Your task to perform on an android device: toggle improve location accuracy Image 0: 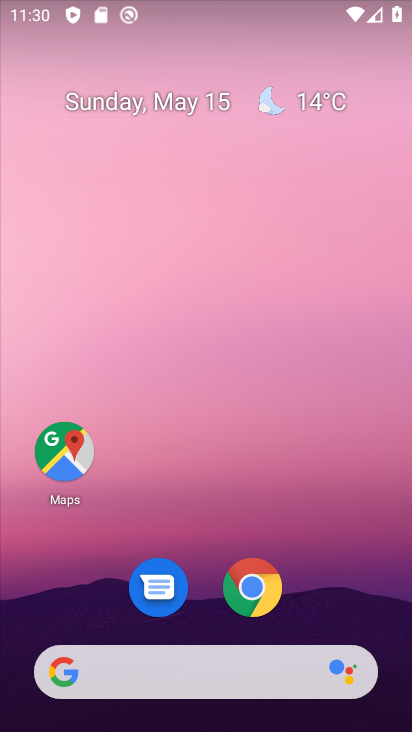
Step 0: drag from (372, 584) to (410, 76)
Your task to perform on an android device: toggle improve location accuracy Image 1: 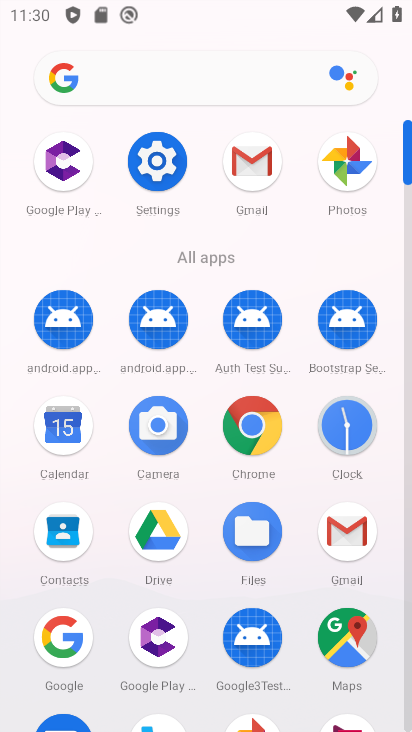
Step 1: click (164, 156)
Your task to perform on an android device: toggle improve location accuracy Image 2: 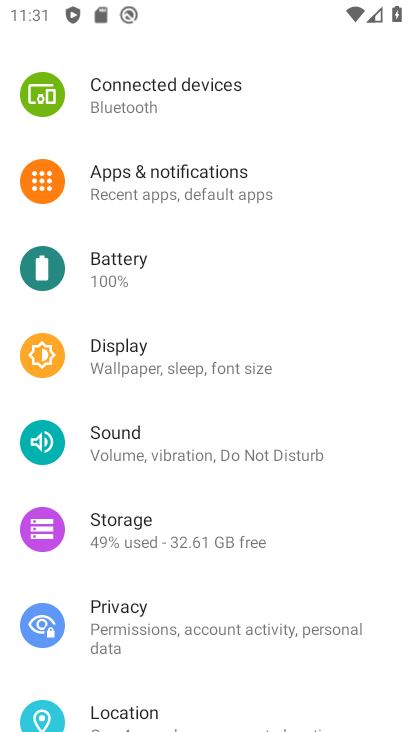
Step 2: click (150, 709)
Your task to perform on an android device: toggle improve location accuracy Image 3: 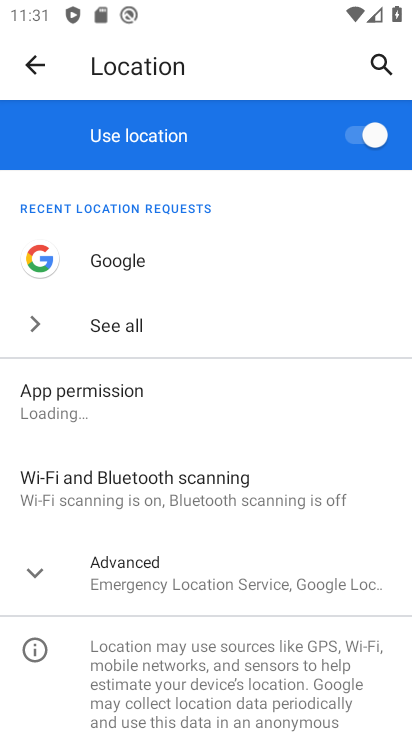
Step 3: click (168, 552)
Your task to perform on an android device: toggle improve location accuracy Image 4: 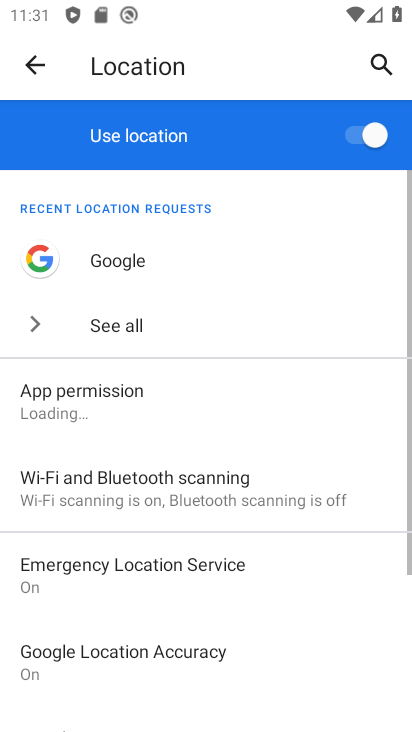
Step 4: drag from (193, 606) to (253, 331)
Your task to perform on an android device: toggle improve location accuracy Image 5: 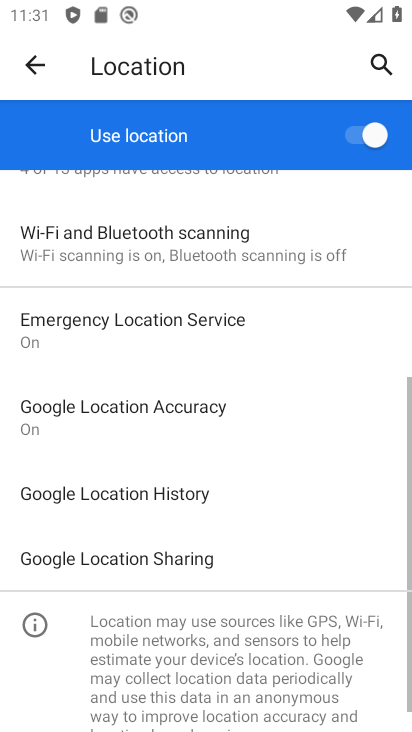
Step 5: click (112, 410)
Your task to perform on an android device: toggle improve location accuracy Image 6: 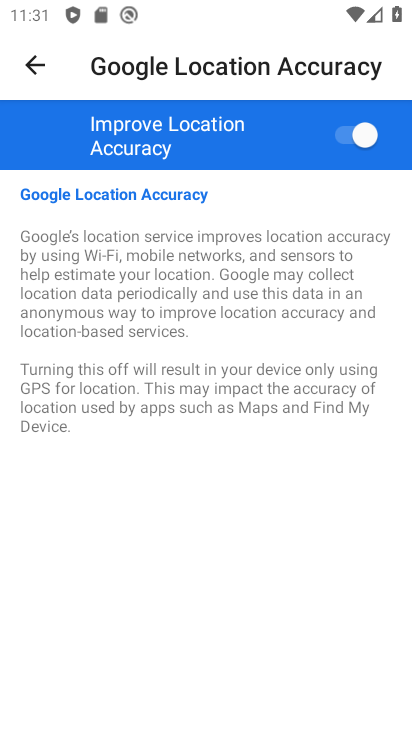
Step 6: click (346, 141)
Your task to perform on an android device: toggle improve location accuracy Image 7: 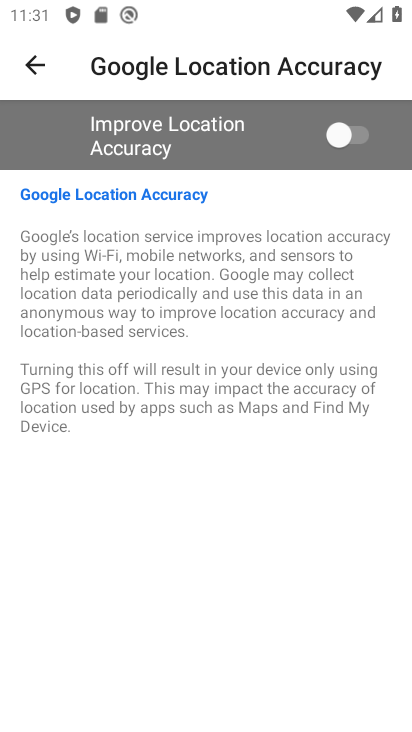
Step 7: task complete